Your task to perform on an android device: refresh tabs in the chrome app Image 0: 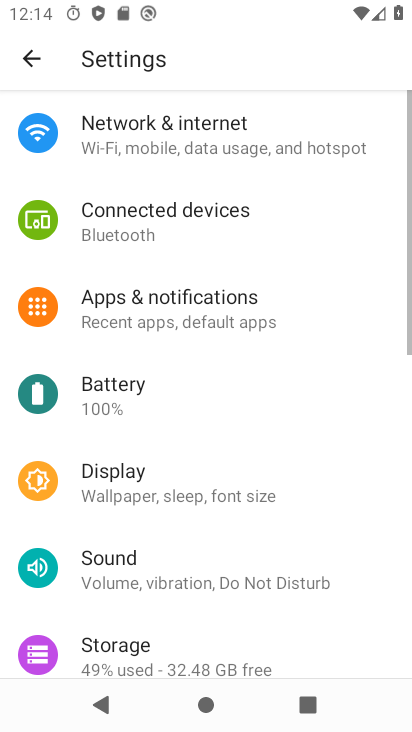
Step 0: press home button
Your task to perform on an android device: refresh tabs in the chrome app Image 1: 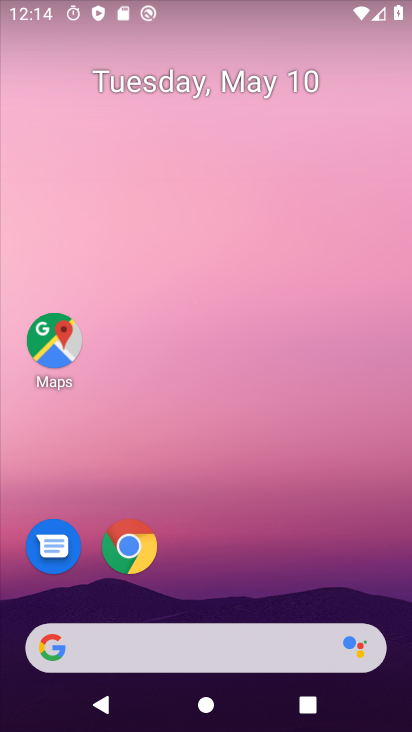
Step 1: click (131, 547)
Your task to perform on an android device: refresh tabs in the chrome app Image 2: 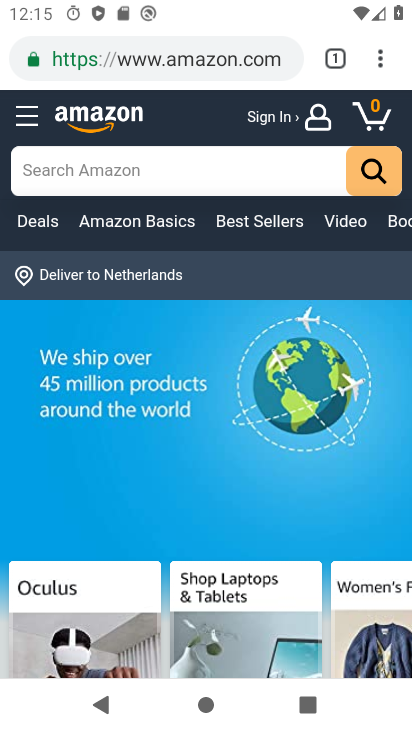
Step 2: task complete